Your task to perform on an android device: Play the last video I watched on Youtube Image 0: 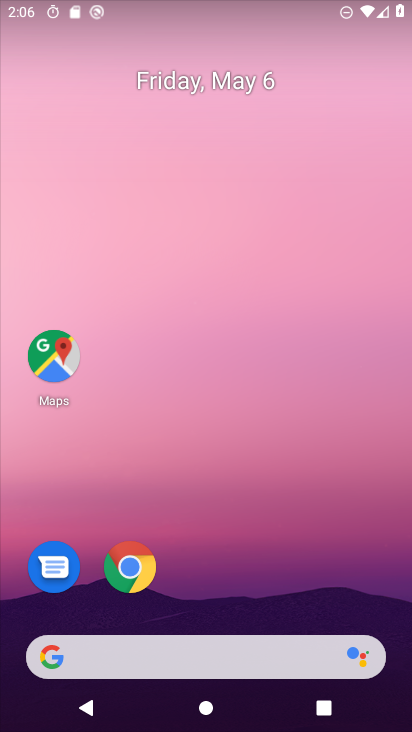
Step 0: drag from (285, 607) to (295, 252)
Your task to perform on an android device: Play the last video I watched on Youtube Image 1: 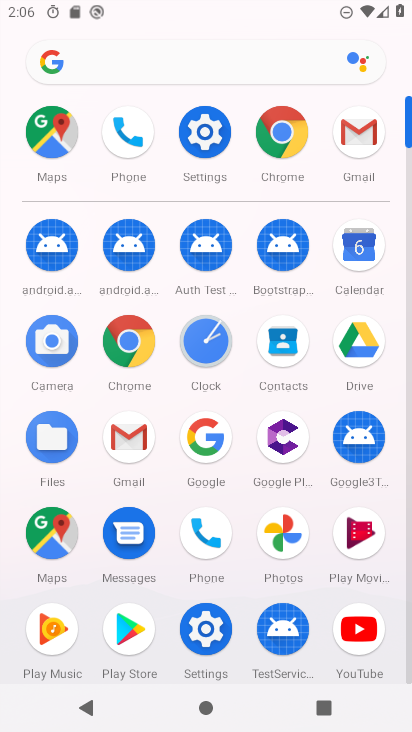
Step 1: click (354, 620)
Your task to perform on an android device: Play the last video I watched on Youtube Image 2: 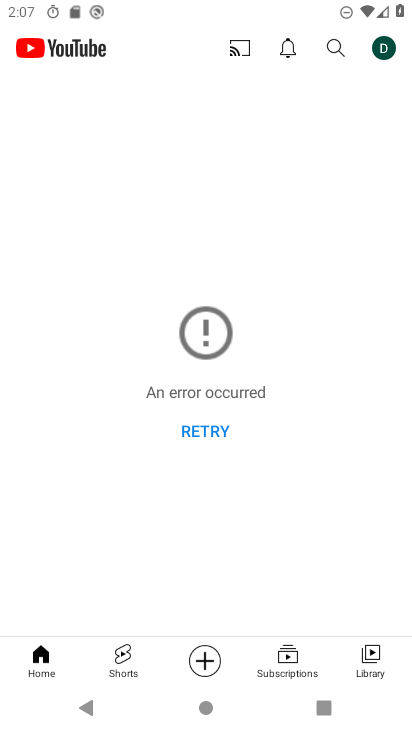
Step 2: click (362, 684)
Your task to perform on an android device: Play the last video I watched on Youtube Image 3: 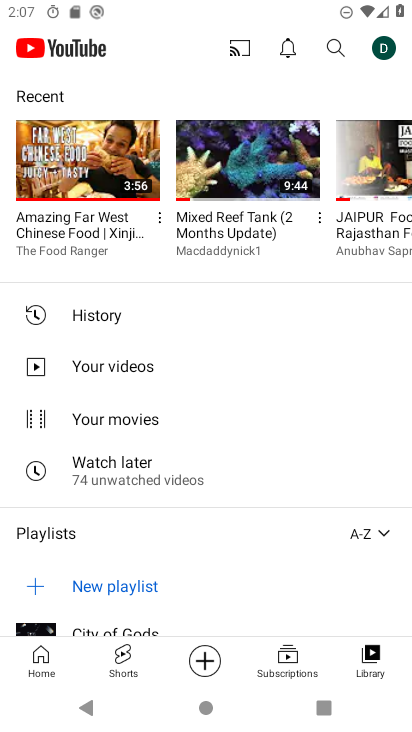
Step 3: click (64, 135)
Your task to perform on an android device: Play the last video I watched on Youtube Image 4: 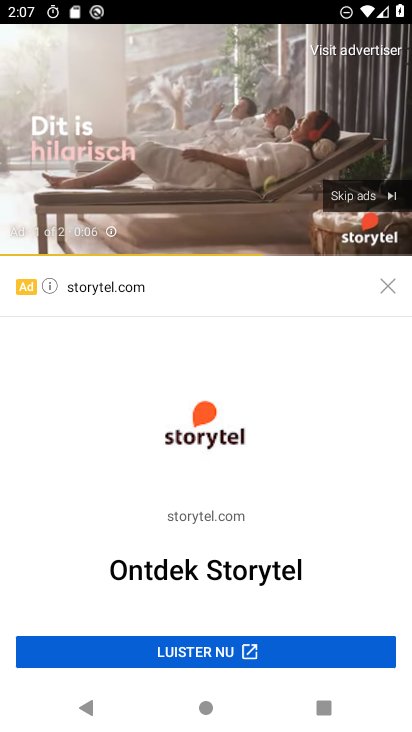
Step 4: click (383, 293)
Your task to perform on an android device: Play the last video I watched on Youtube Image 5: 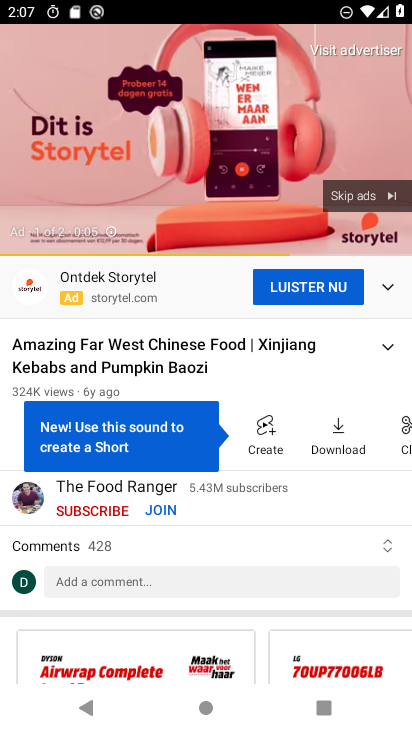
Step 5: click (372, 191)
Your task to perform on an android device: Play the last video I watched on Youtube Image 6: 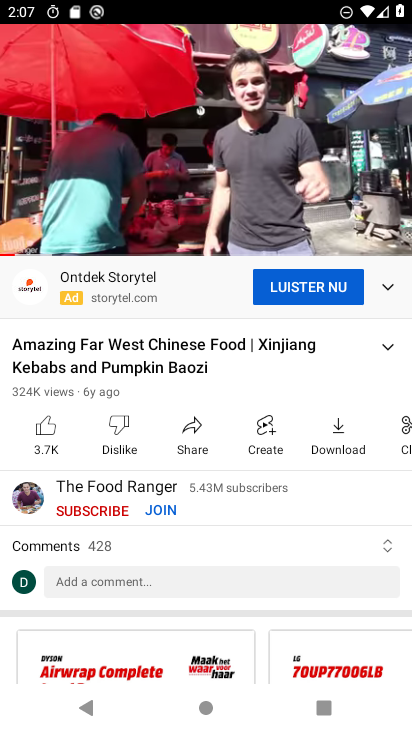
Step 6: task complete